Your task to perform on an android device: add a label to a message in the gmail app Image 0: 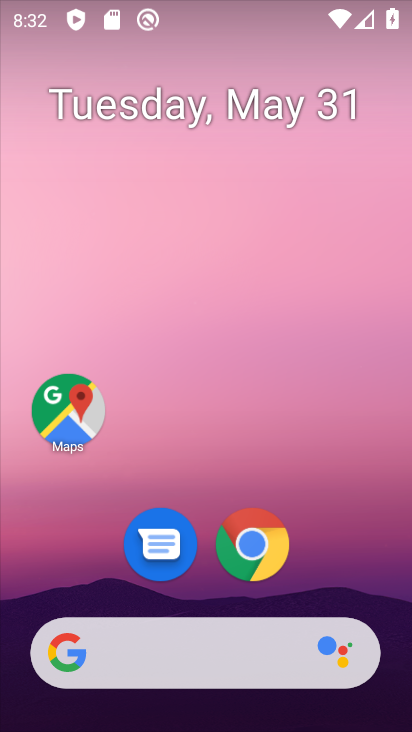
Step 0: drag from (313, 568) to (314, 36)
Your task to perform on an android device: add a label to a message in the gmail app Image 1: 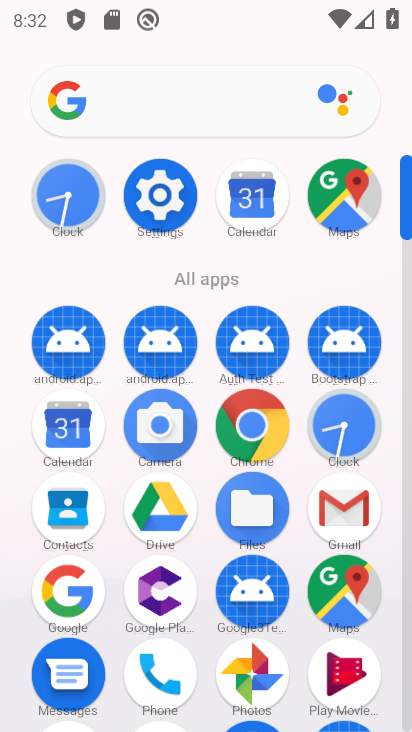
Step 1: click (341, 509)
Your task to perform on an android device: add a label to a message in the gmail app Image 2: 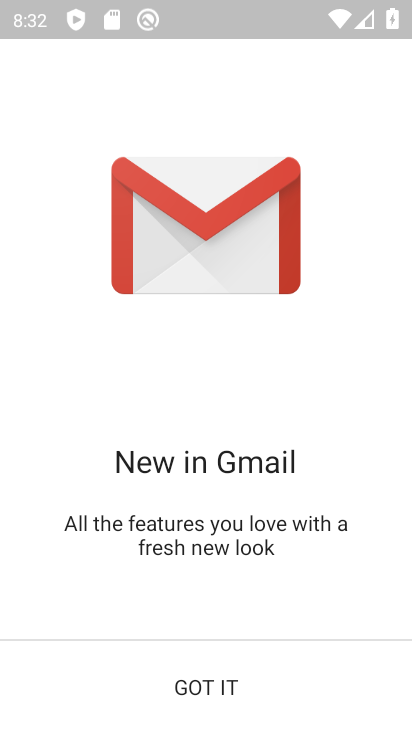
Step 2: click (187, 669)
Your task to perform on an android device: add a label to a message in the gmail app Image 3: 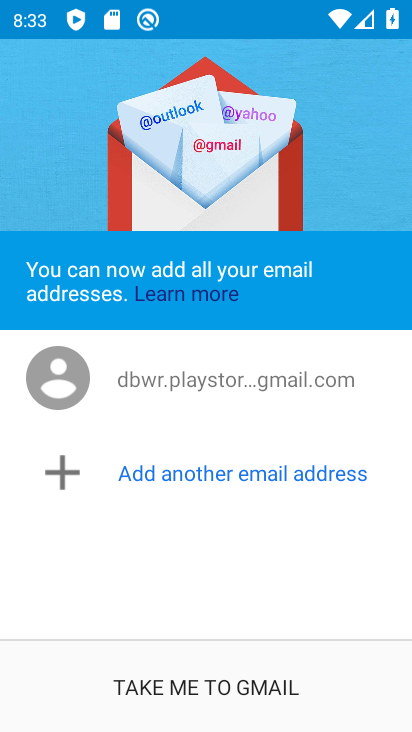
Step 3: click (180, 669)
Your task to perform on an android device: add a label to a message in the gmail app Image 4: 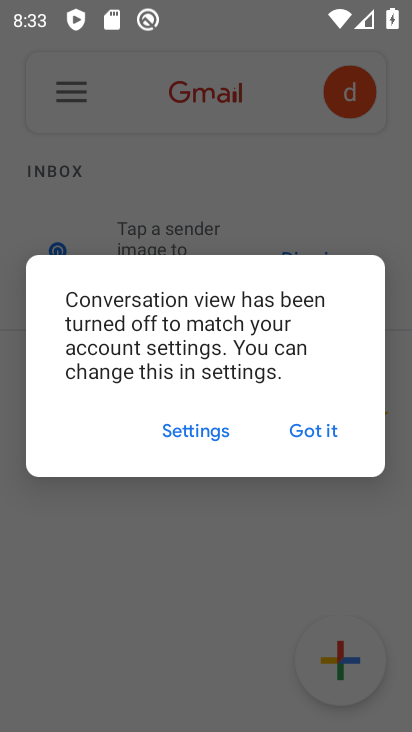
Step 4: click (322, 426)
Your task to perform on an android device: add a label to a message in the gmail app Image 5: 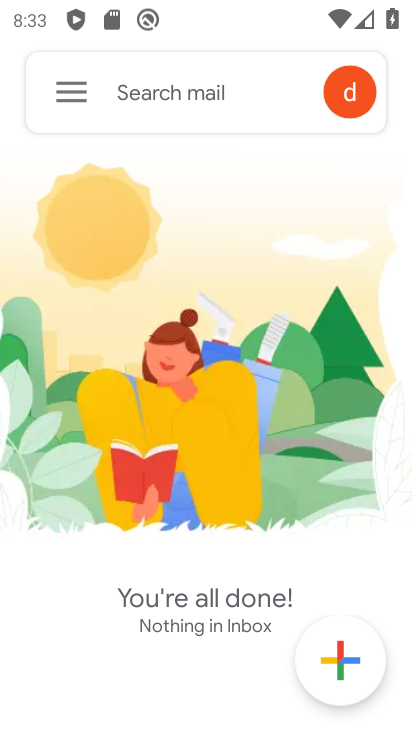
Step 5: click (81, 82)
Your task to perform on an android device: add a label to a message in the gmail app Image 6: 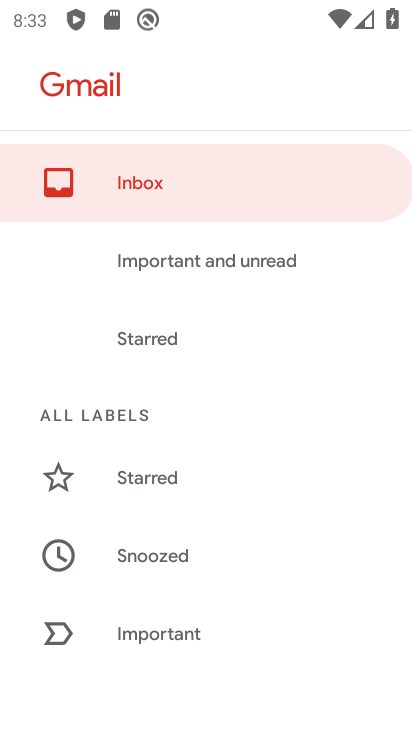
Step 6: drag from (152, 558) to (199, 68)
Your task to perform on an android device: add a label to a message in the gmail app Image 7: 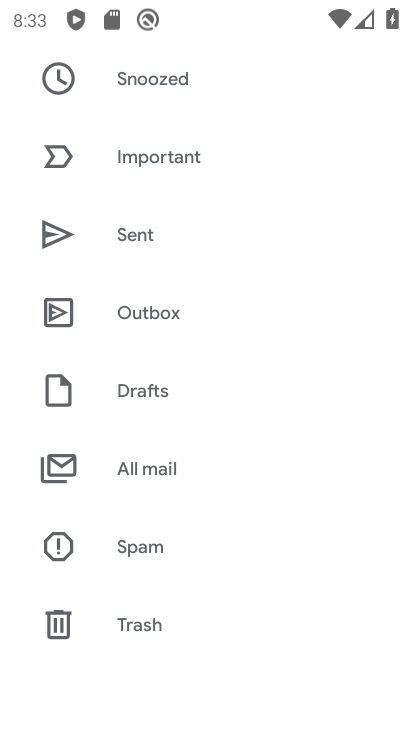
Step 7: click (124, 457)
Your task to perform on an android device: add a label to a message in the gmail app Image 8: 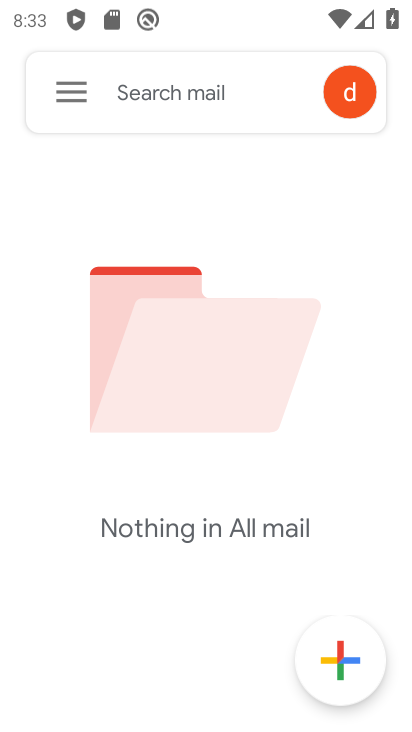
Step 8: task complete